Your task to perform on an android device: turn pop-ups on in chrome Image 0: 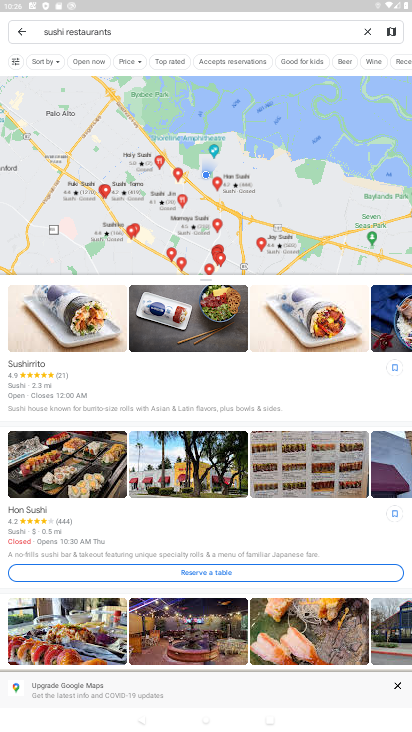
Step 0: press home button
Your task to perform on an android device: turn pop-ups on in chrome Image 1: 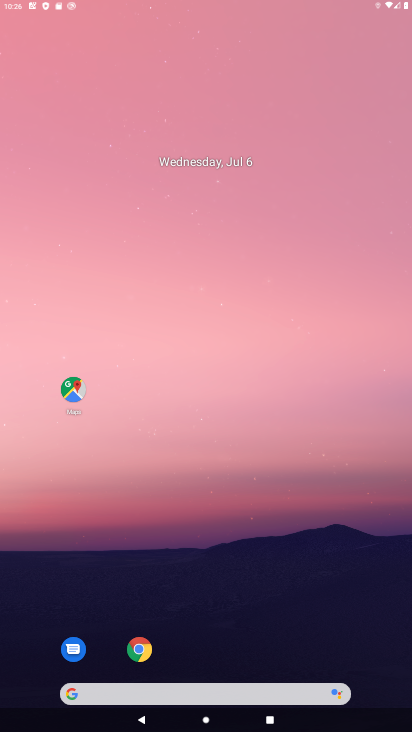
Step 1: drag from (397, 681) to (291, 23)
Your task to perform on an android device: turn pop-ups on in chrome Image 2: 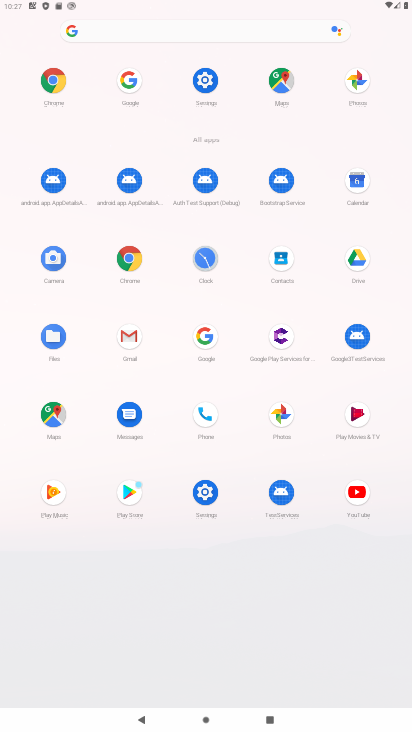
Step 2: click (54, 70)
Your task to perform on an android device: turn pop-ups on in chrome Image 3: 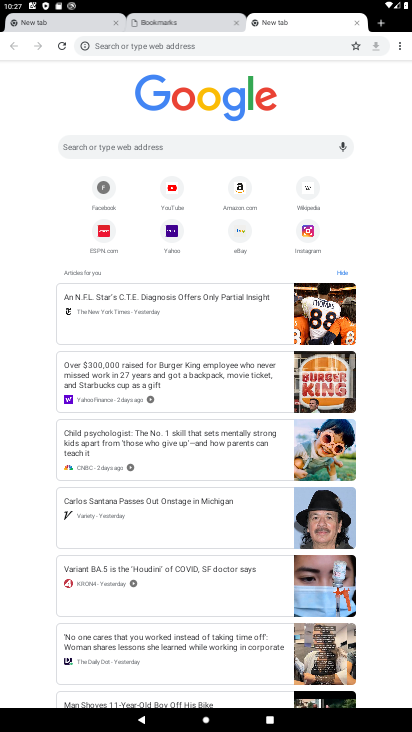
Step 3: click (397, 42)
Your task to perform on an android device: turn pop-ups on in chrome Image 4: 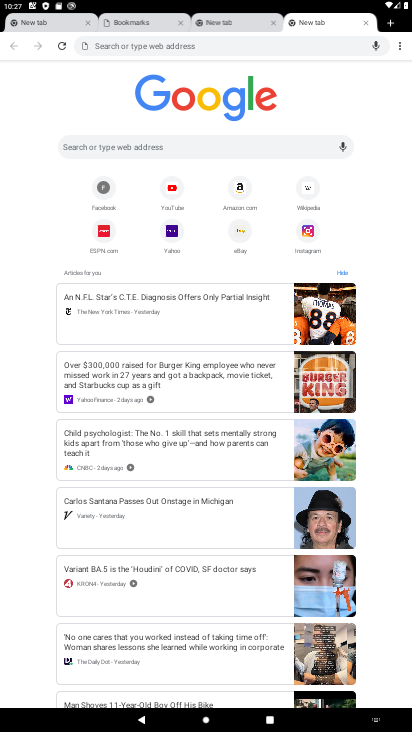
Step 4: click (397, 42)
Your task to perform on an android device: turn pop-ups on in chrome Image 5: 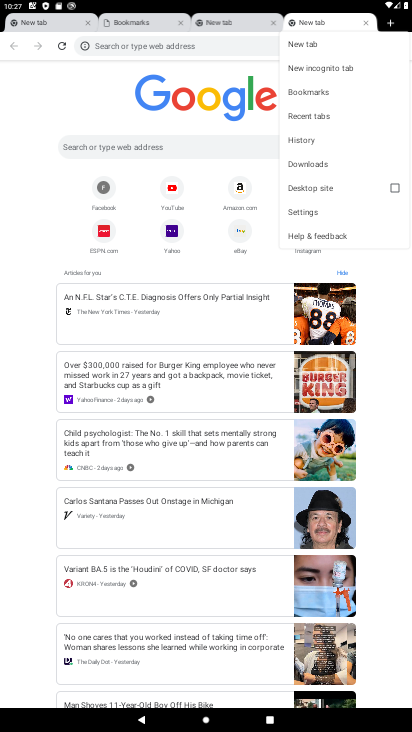
Step 5: click (318, 217)
Your task to perform on an android device: turn pop-ups on in chrome Image 6: 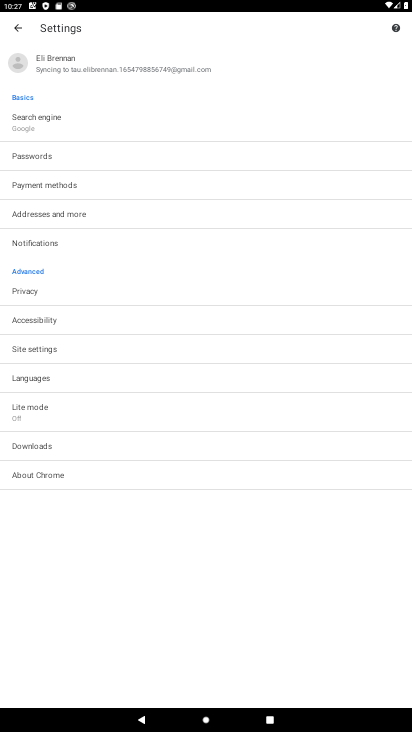
Step 6: click (51, 345)
Your task to perform on an android device: turn pop-ups on in chrome Image 7: 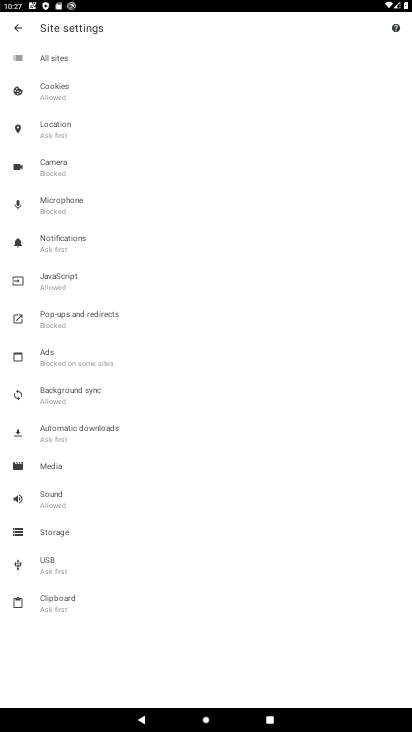
Step 7: click (83, 315)
Your task to perform on an android device: turn pop-ups on in chrome Image 8: 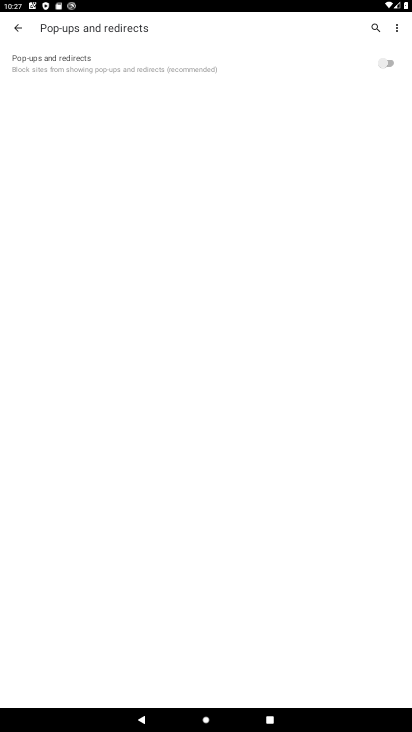
Step 8: click (393, 62)
Your task to perform on an android device: turn pop-ups on in chrome Image 9: 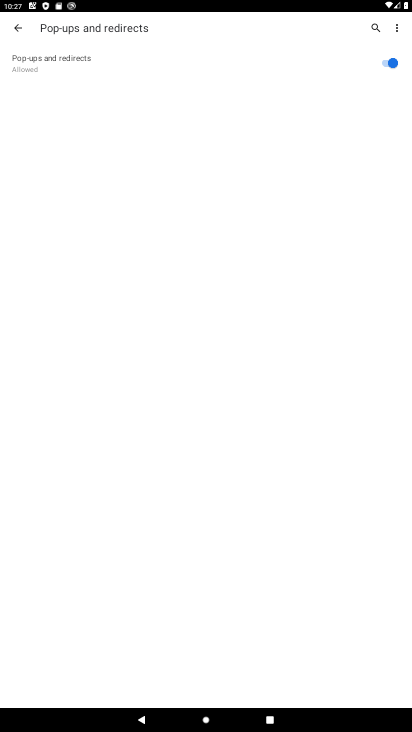
Step 9: task complete